Your task to perform on an android device: turn on wifi Image 0: 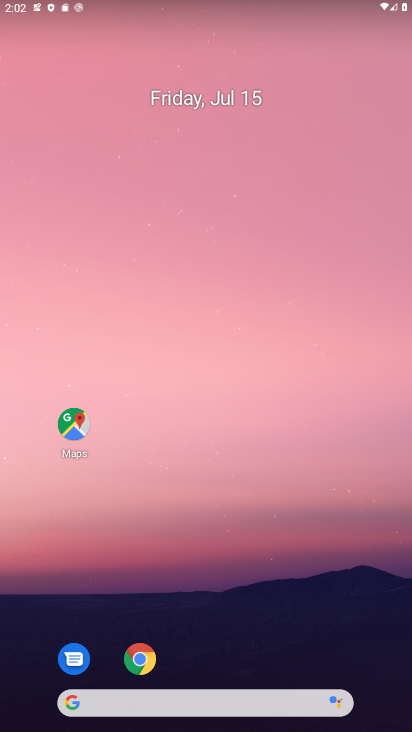
Step 0: drag from (246, 666) to (261, 247)
Your task to perform on an android device: turn on wifi Image 1: 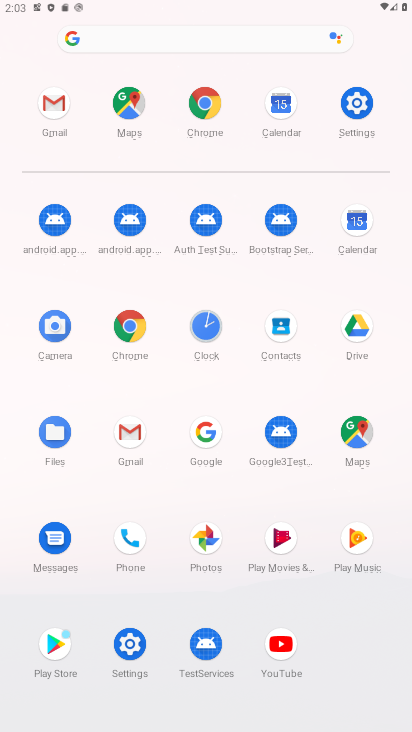
Step 1: click (346, 103)
Your task to perform on an android device: turn on wifi Image 2: 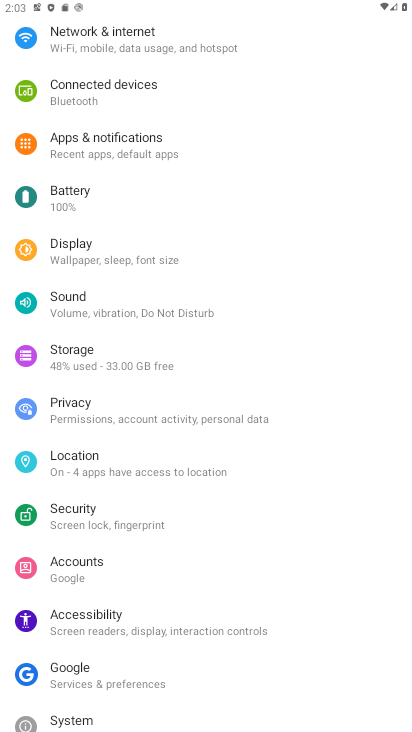
Step 2: click (118, 56)
Your task to perform on an android device: turn on wifi Image 3: 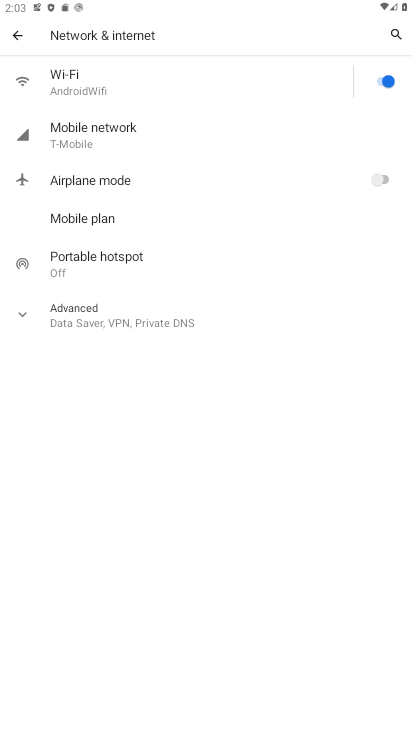
Step 3: click (116, 72)
Your task to perform on an android device: turn on wifi Image 4: 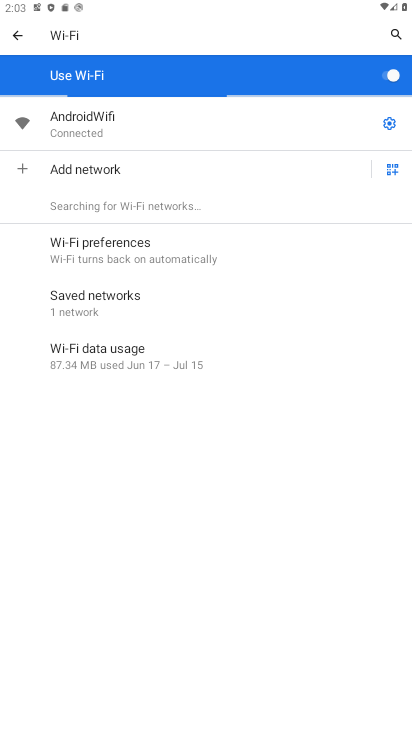
Step 4: task complete